Your task to perform on an android device: Open calendar and show me the second week of next month Image 0: 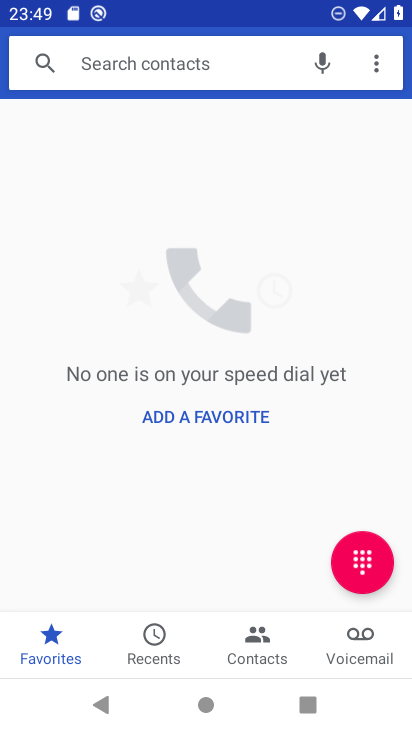
Step 0: press home button
Your task to perform on an android device: Open calendar and show me the second week of next month Image 1: 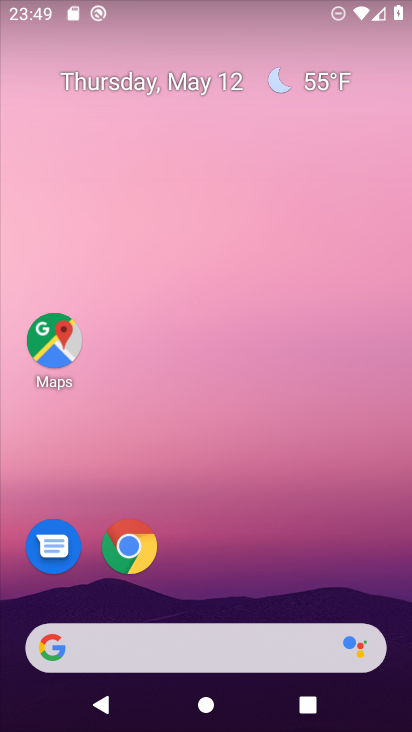
Step 1: drag from (287, 533) to (333, 102)
Your task to perform on an android device: Open calendar and show me the second week of next month Image 2: 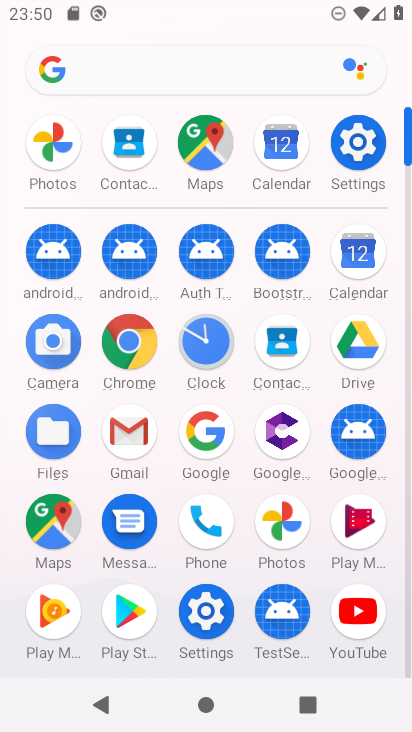
Step 2: click (351, 264)
Your task to perform on an android device: Open calendar and show me the second week of next month Image 3: 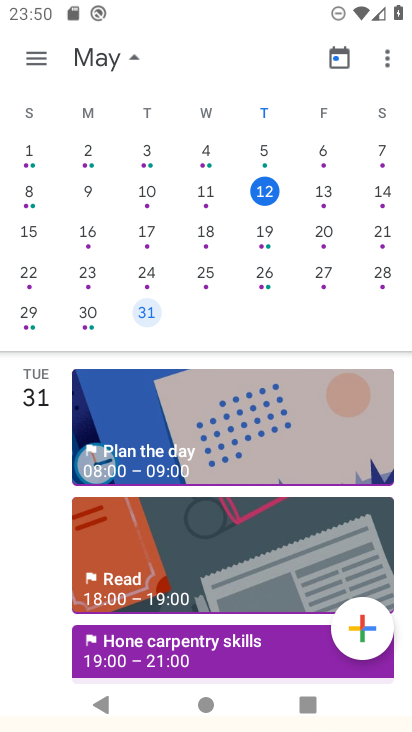
Step 3: drag from (393, 247) to (16, 200)
Your task to perform on an android device: Open calendar and show me the second week of next month Image 4: 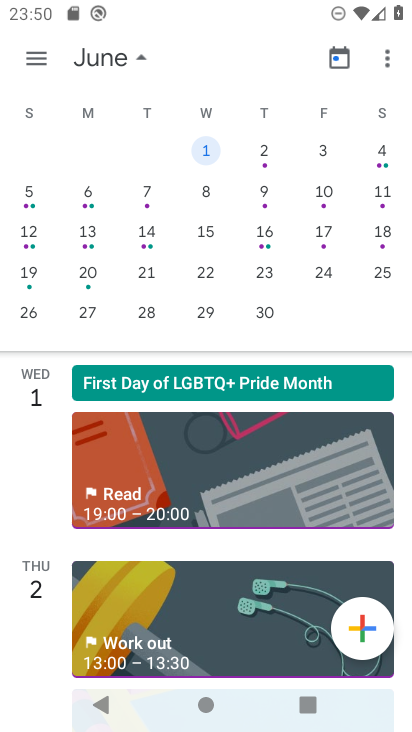
Step 4: click (205, 189)
Your task to perform on an android device: Open calendar and show me the second week of next month Image 5: 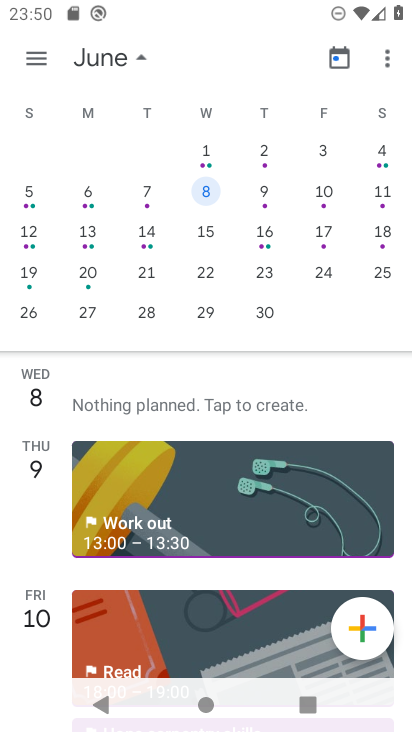
Step 5: click (151, 189)
Your task to perform on an android device: Open calendar and show me the second week of next month Image 6: 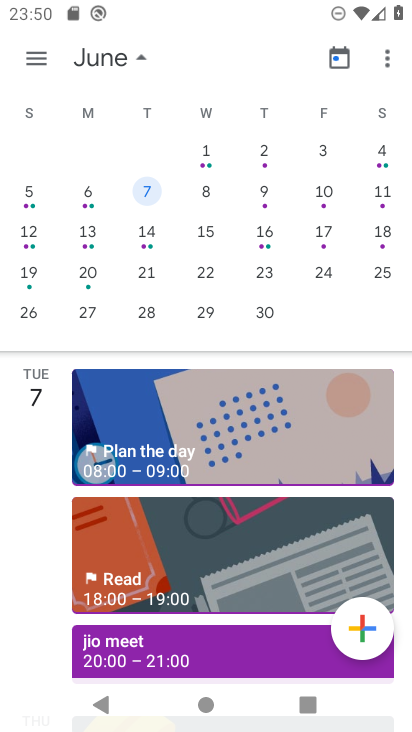
Step 6: click (80, 190)
Your task to perform on an android device: Open calendar and show me the second week of next month Image 7: 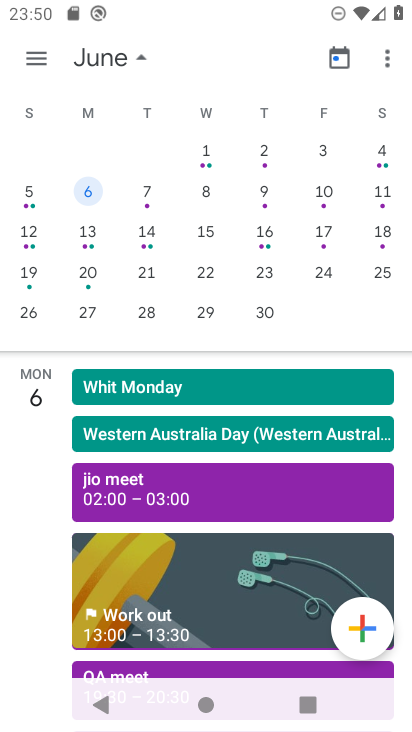
Step 7: click (35, 63)
Your task to perform on an android device: Open calendar and show me the second week of next month Image 8: 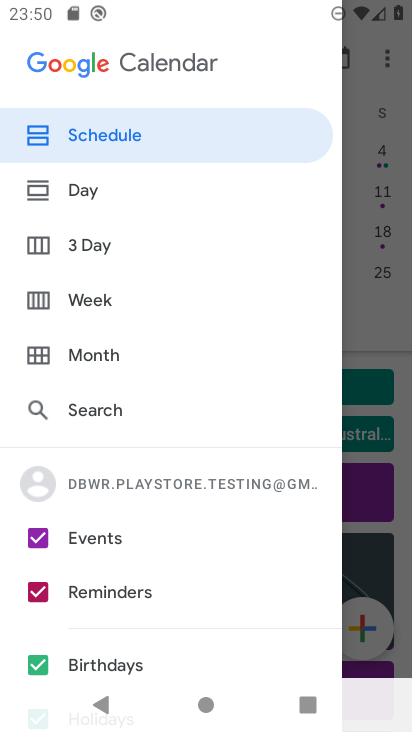
Step 8: click (108, 295)
Your task to perform on an android device: Open calendar and show me the second week of next month Image 9: 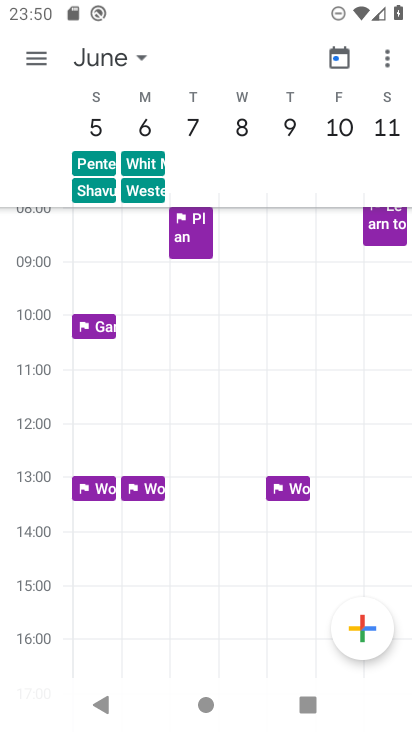
Step 9: task complete